Your task to perform on an android device: Open Google Image 0: 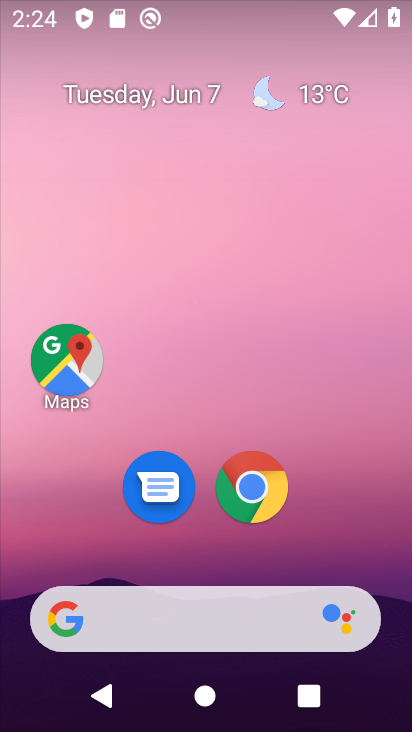
Step 0: drag from (339, 551) to (335, 60)
Your task to perform on an android device: Open Google Image 1: 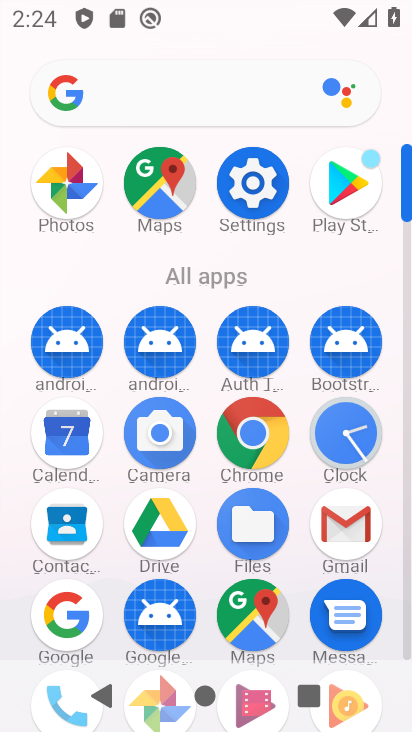
Step 1: drag from (103, 600) to (117, 278)
Your task to perform on an android device: Open Google Image 2: 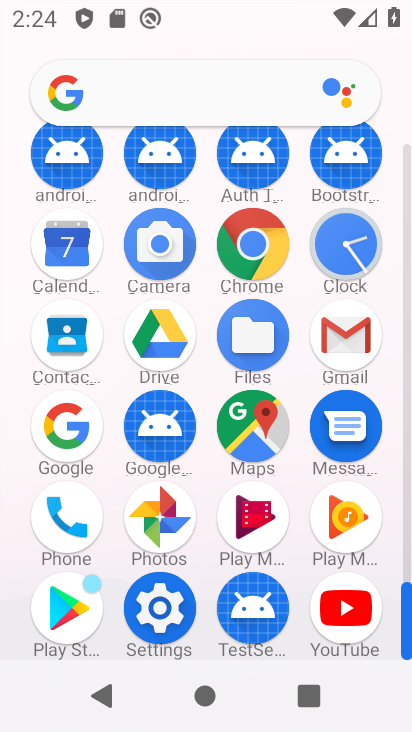
Step 2: click (69, 435)
Your task to perform on an android device: Open Google Image 3: 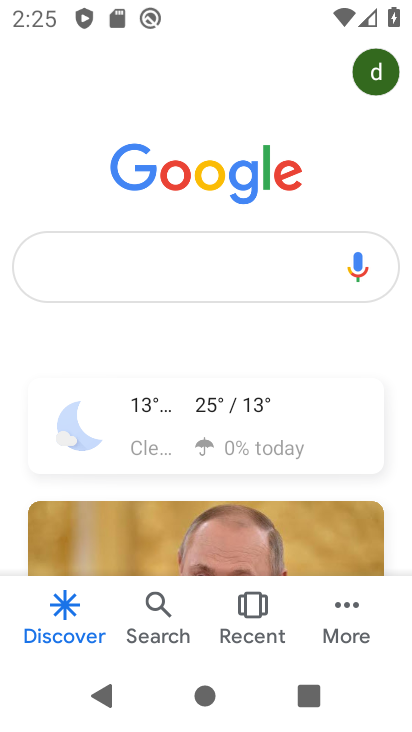
Step 3: task complete